Your task to perform on an android device: Open network settings Image 0: 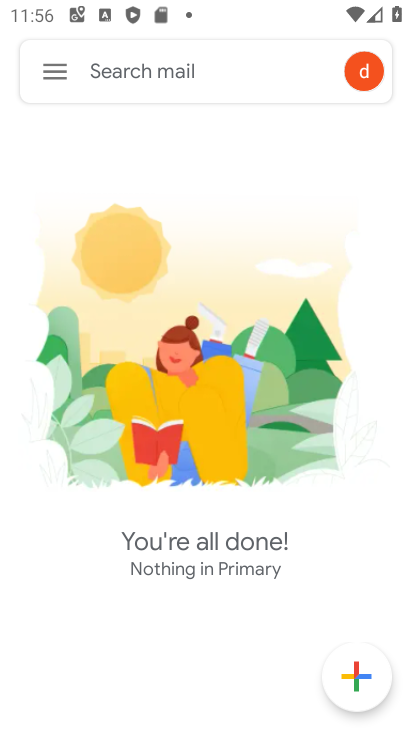
Step 0: drag from (214, 7) to (210, 551)
Your task to perform on an android device: Open network settings Image 1: 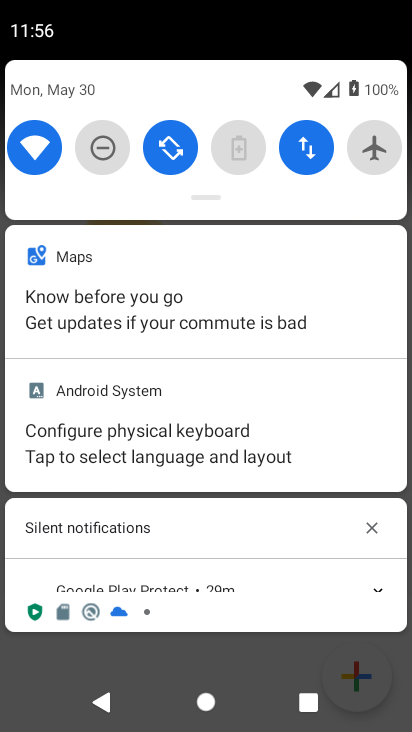
Step 1: click (312, 144)
Your task to perform on an android device: Open network settings Image 2: 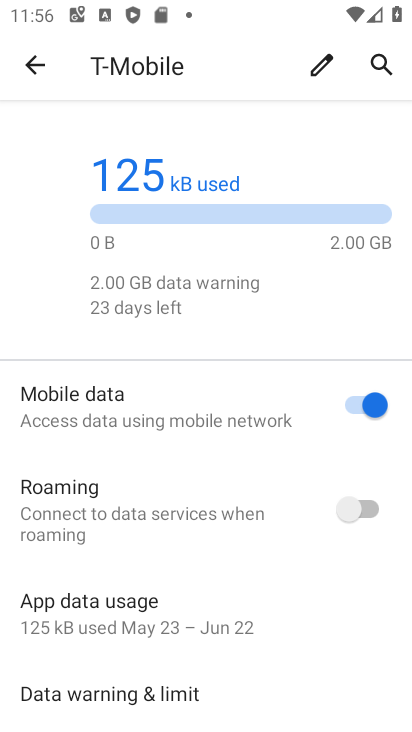
Step 2: task complete